Your task to perform on an android device: delete location history Image 0: 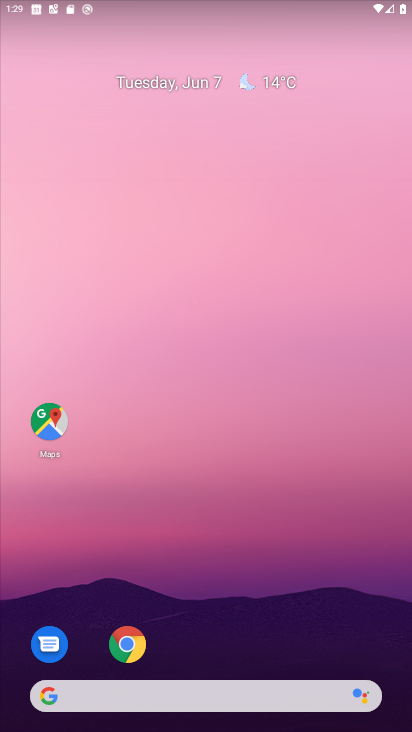
Step 0: click (47, 417)
Your task to perform on an android device: delete location history Image 1: 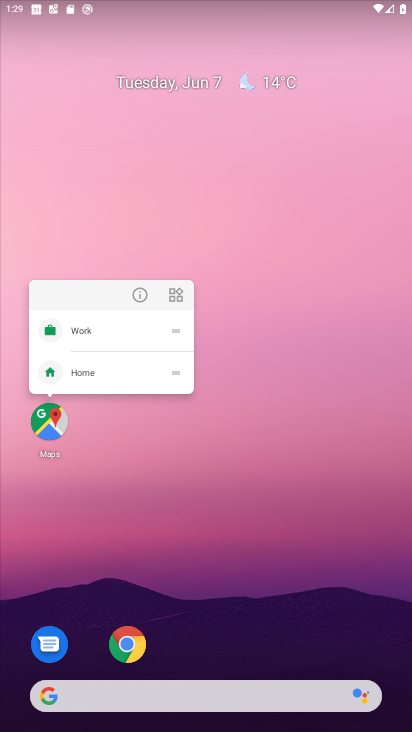
Step 1: click (47, 417)
Your task to perform on an android device: delete location history Image 2: 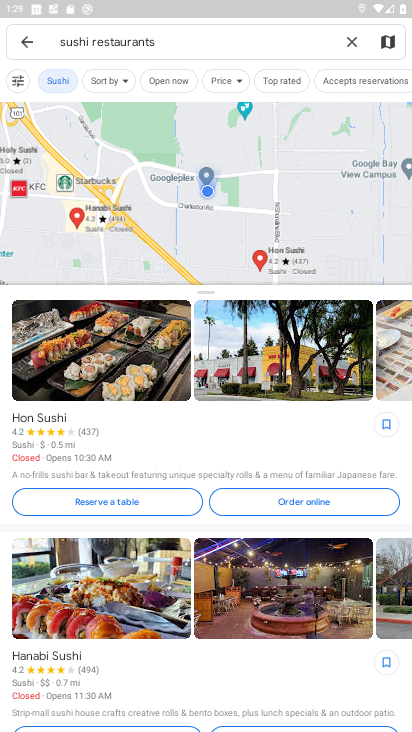
Step 2: click (28, 41)
Your task to perform on an android device: delete location history Image 3: 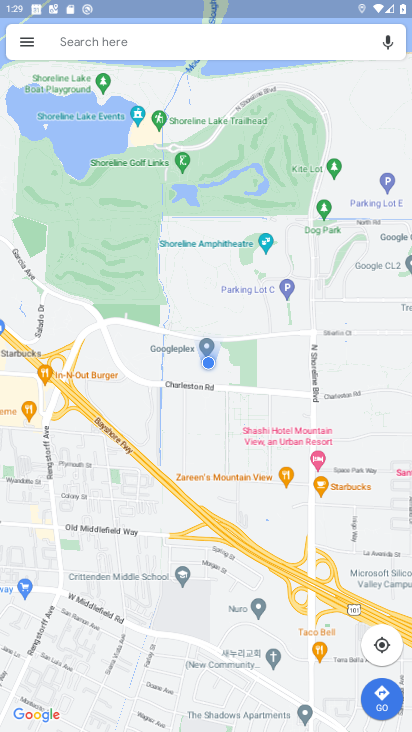
Step 3: click (30, 42)
Your task to perform on an android device: delete location history Image 4: 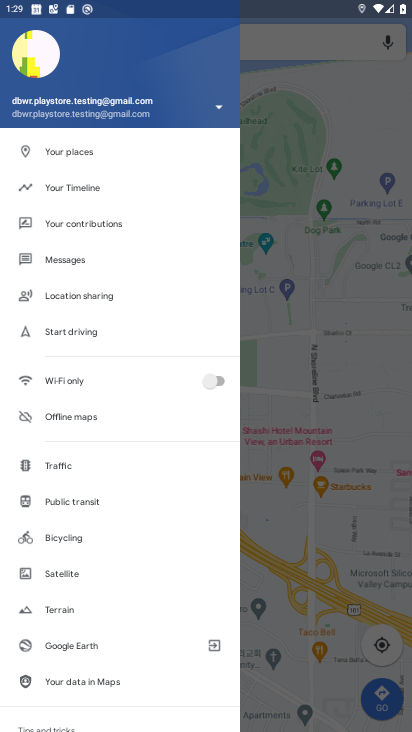
Step 4: click (92, 180)
Your task to perform on an android device: delete location history Image 5: 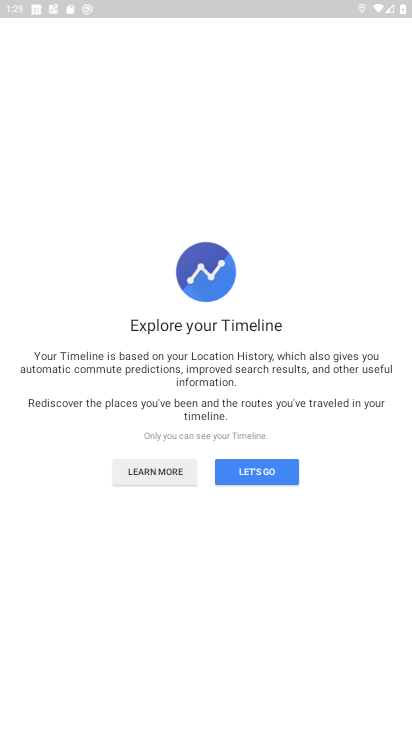
Step 5: click (245, 476)
Your task to perform on an android device: delete location history Image 6: 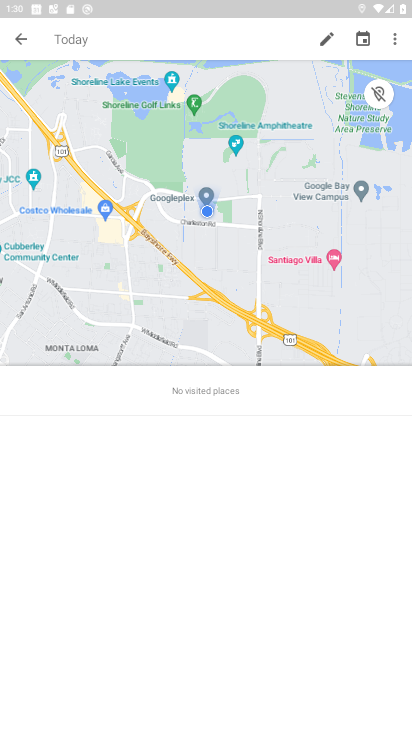
Step 6: click (394, 34)
Your task to perform on an android device: delete location history Image 7: 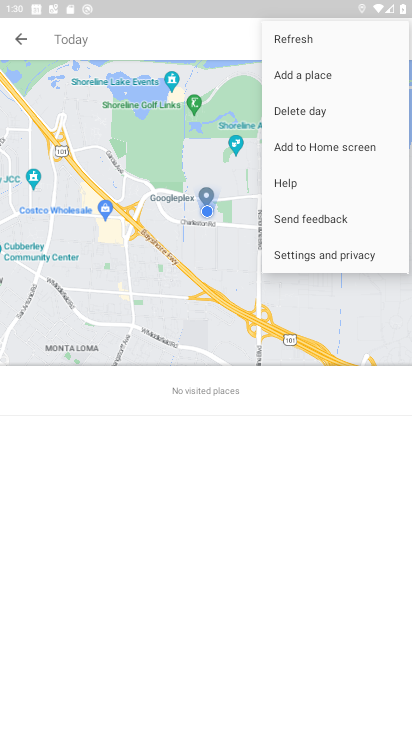
Step 7: click (335, 265)
Your task to perform on an android device: delete location history Image 8: 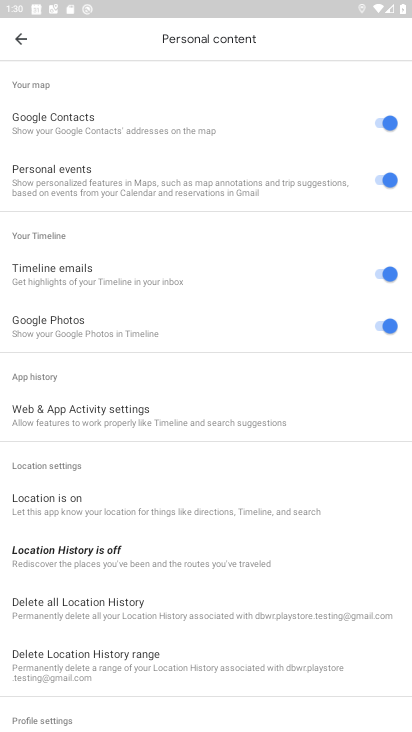
Step 8: click (77, 609)
Your task to perform on an android device: delete location history Image 9: 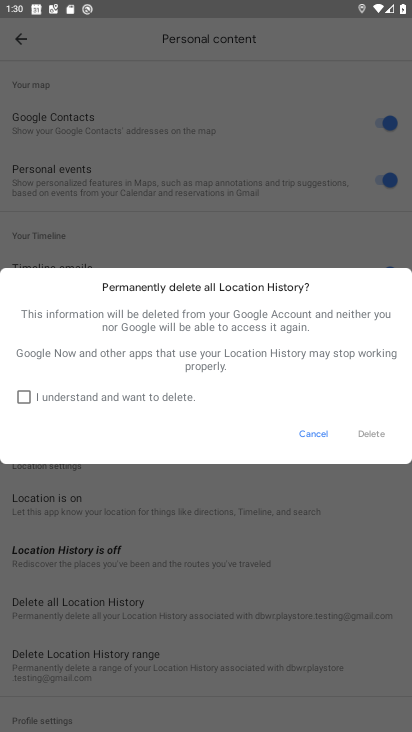
Step 9: click (72, 391)
Your task to perform on an android device: delete location history Image 10: 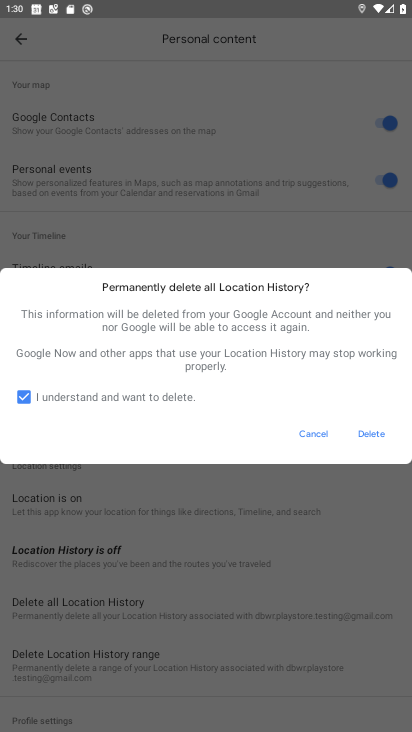
Step 10: click (369, 424)
Your task to perform on an android device: delete location history Image 11: 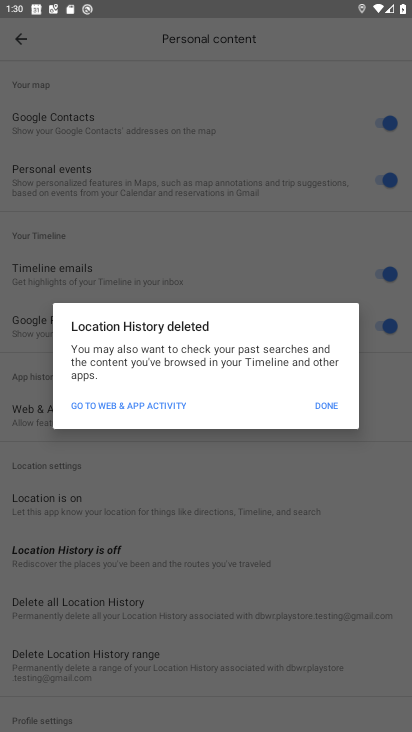
Step 11: click (328, 408)
Your task to perform on an android device: delete location history Image 12: 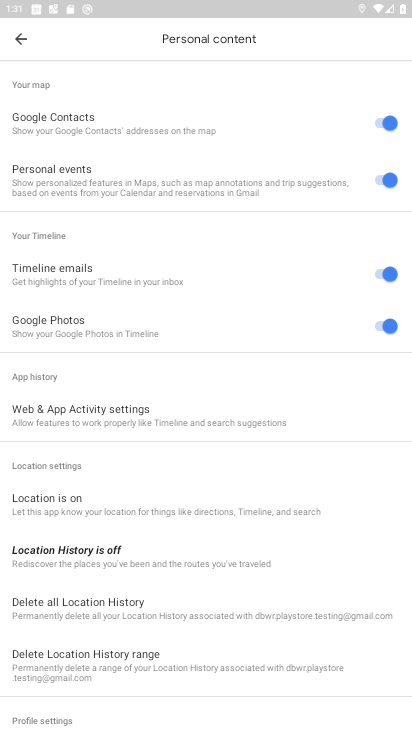
Step 12: task complete